Your task to perform on an android device: Toggle the flashlight Image 0: 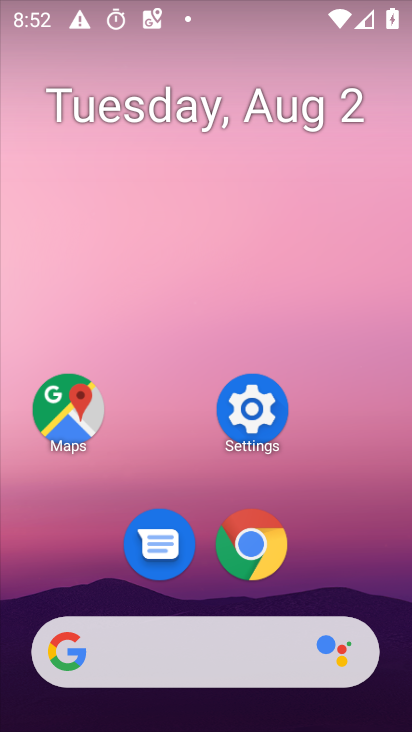
Step 0: drag from (246, 2) to (304, 538)
Your task to perform on an android device: Toggle the flashlight Image 1: 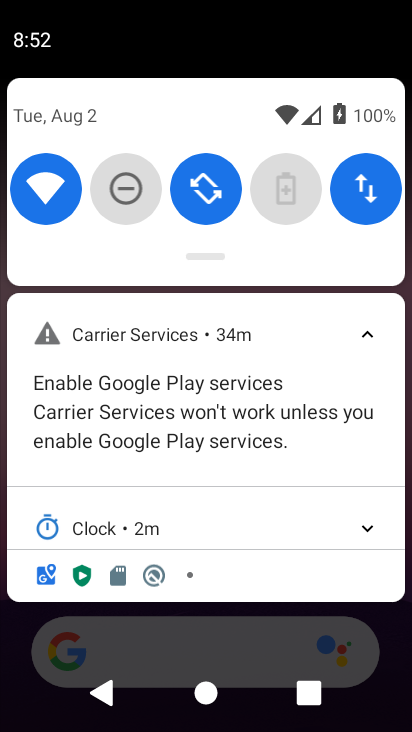
Step 1: task complete